Your task to perform on an android device: Open the calendar and show me this week's events? Image 0: 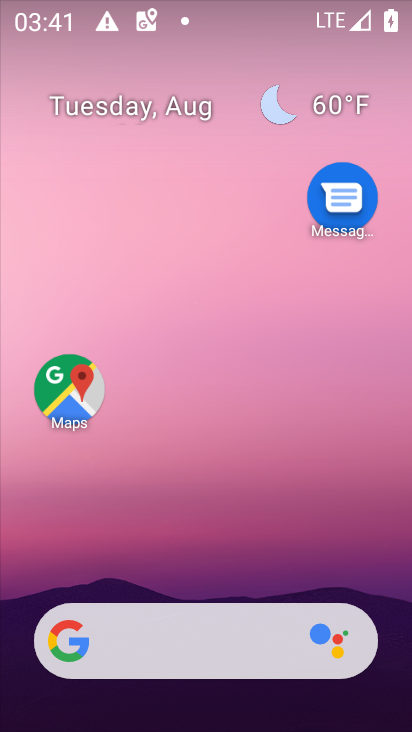
Step 0: drag from (191, 584) to (198, 172)
Your task to perform on an android device: Open the calendar and show me this week's events? Image 1: 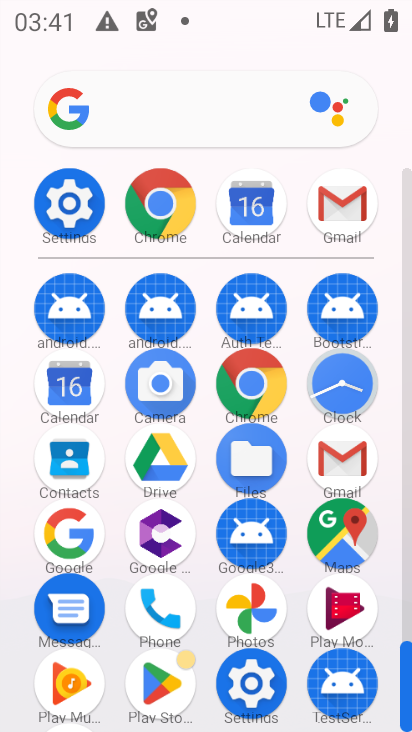
Step 1: click (244, 203)
Your task to perform on an android device: Open the calendar and show me this week's events? Image 2: 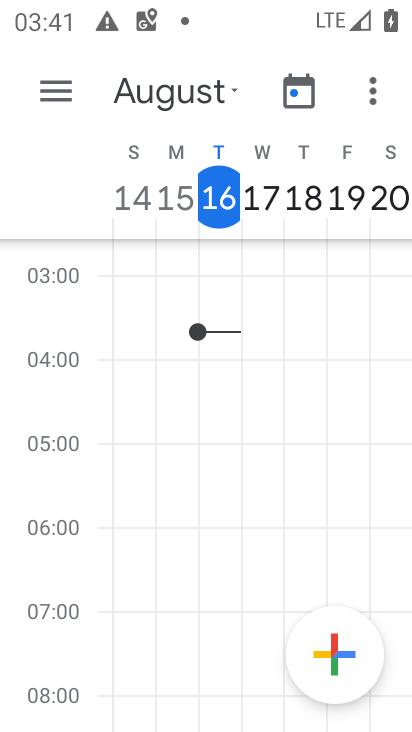
Step 2: task complete